Your task to perform on an android device: Go to Google Image 0: 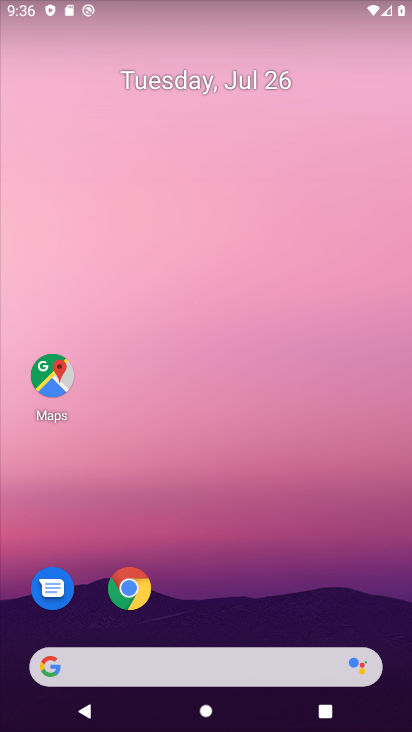
Step 0: drag from (223, 608) to (369, 15)
Your task to perform on an android device: Go to Google Image 1: 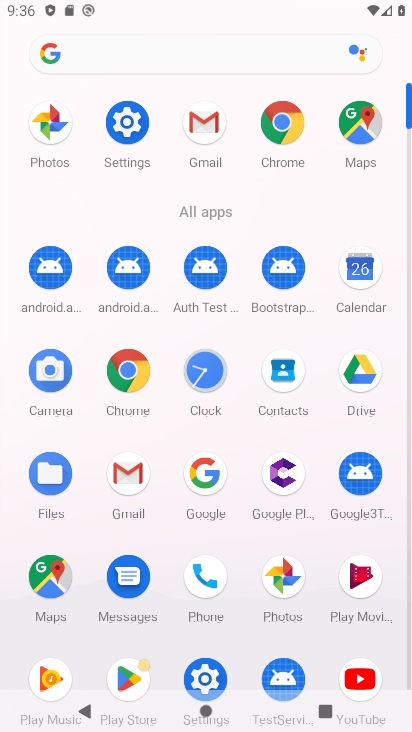
Step 1: click (218, 470)
Your task to perform on an android device: Go to Google Image 2: 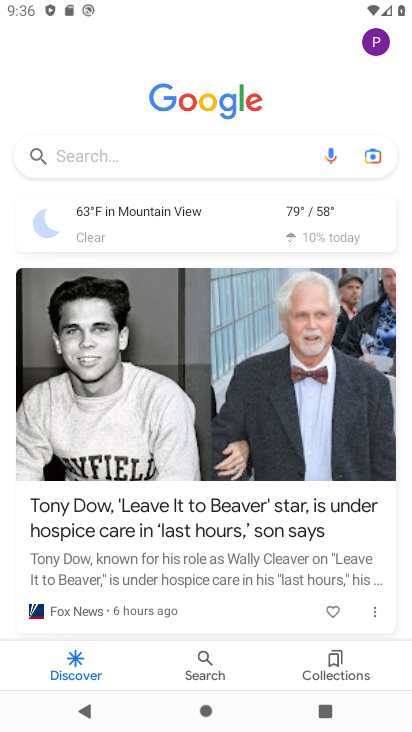
Step 2: task complete